Your task to perform on an android device: Find coffee shops on Maps Image 0: 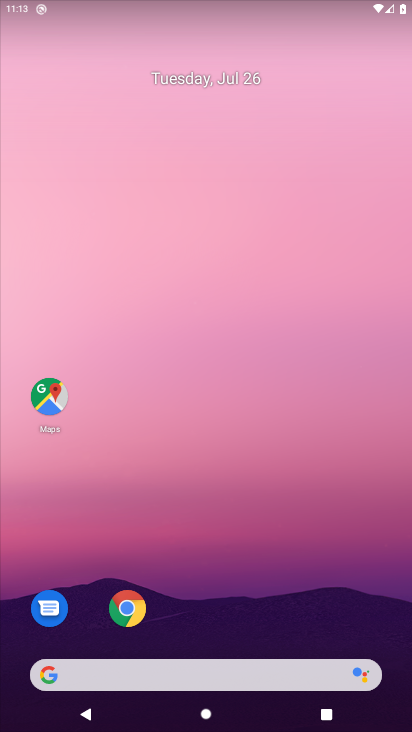
Step 0: drag from (153, 598) to (205, 117)
Your task to perform on an android device: Find coffee shops on Maps Image 1: 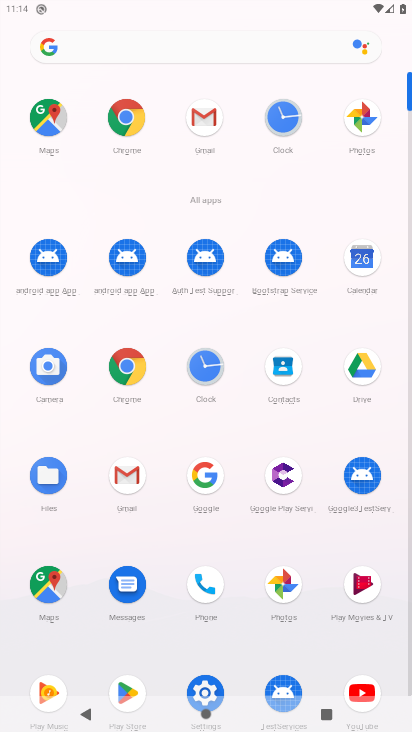
Step 1: click (61, 580)
Your task to perform on an android device: Find coffee shops on Maps Image 2: 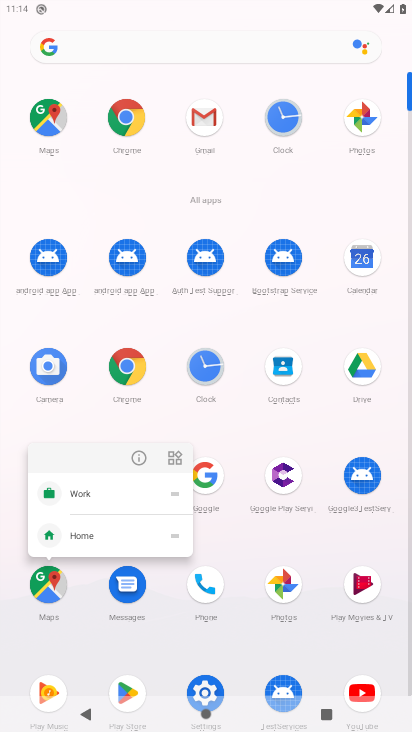
Step 2: click (140, 457)
Your task to perform on an android device: Find coffee shops on Maps Image 3: 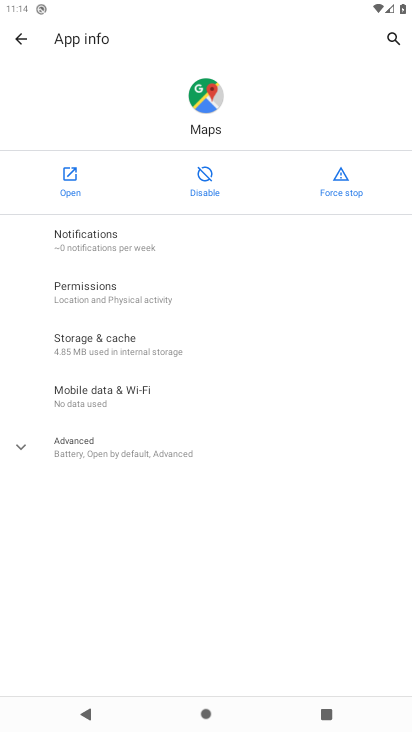
Step 3: click (61, 177)
Your task to perform on an android device: Find coffee shops on Maps Image 4: 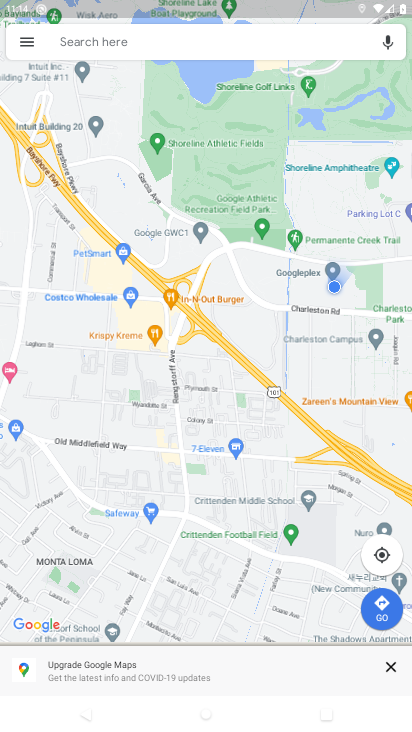
Step 4: drag from (273, 328) to (269, 254)
Your task to perform on an android device: Find coffee shops on Maps Image 5: 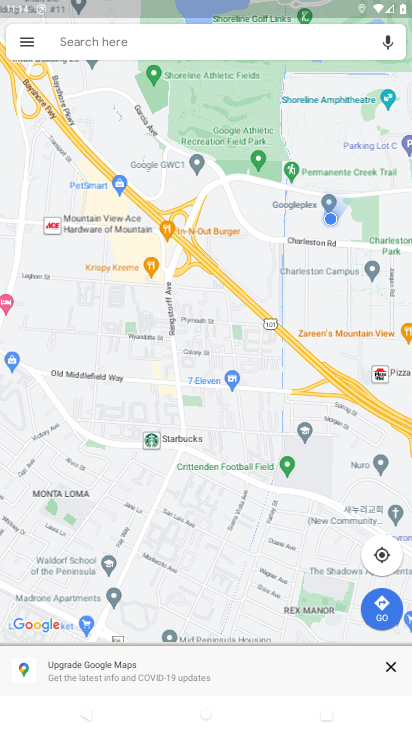
Step 5: click (139, 49)
Your task to perform on an android device: Find coffee shops on Maps Image 6: 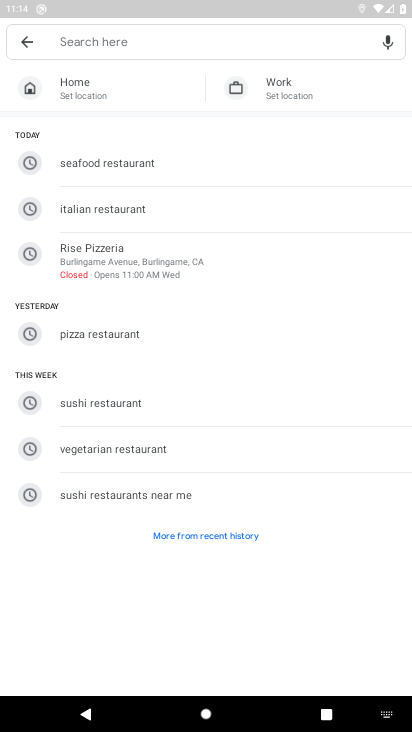
Step 6: type "coffee"
Your task to perform on an android device: Find coffee shops on Maps Image 7: 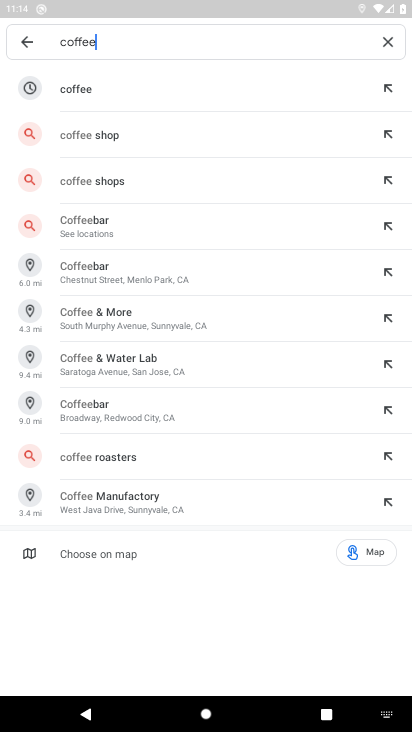
Step 7: click (81, 80)
Your task to perform on an android device: Find coffee shops on Maps Image 8: 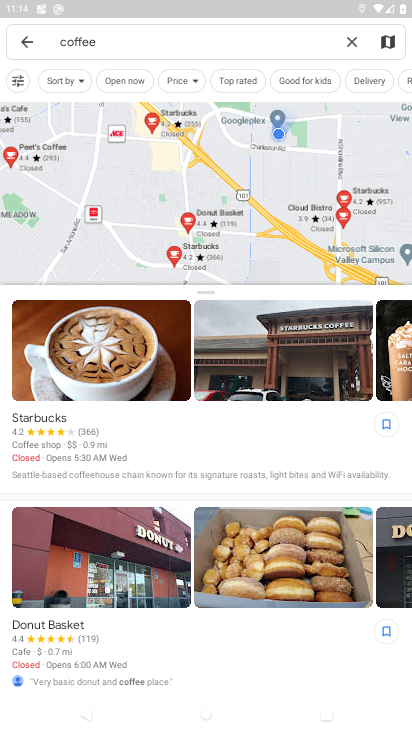
Step 8: task complete